Your task to perform on an android device: Clear all items from cart on amazon. Search for razer naga on amazon, select the first entry, add it to the cart, then select checkout. Image 0: 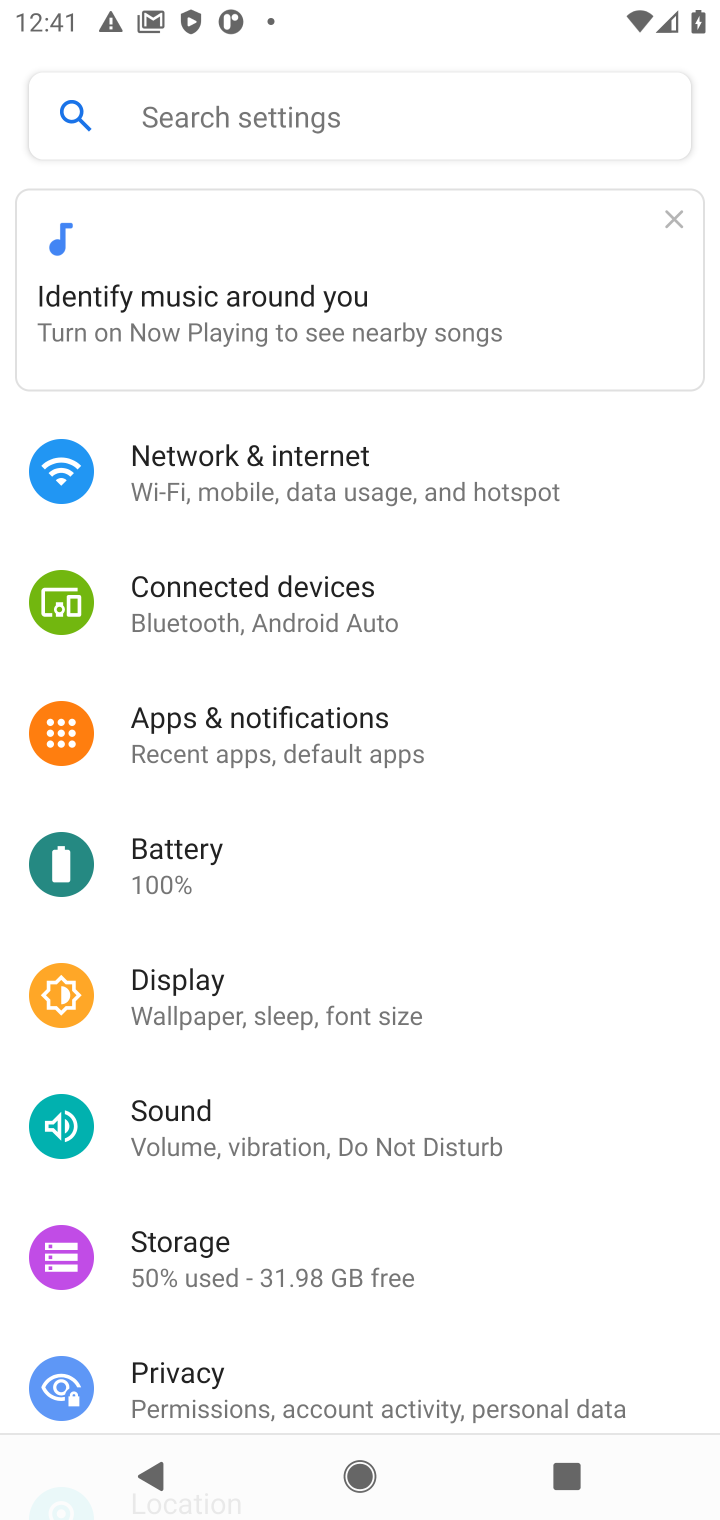
Step 0: press home button
Your task to perform on an android device: Clear all items from cart on amazon. Search for razer naga on amazon, select the first entry, add it to the cart, then select checkout. Image 1: 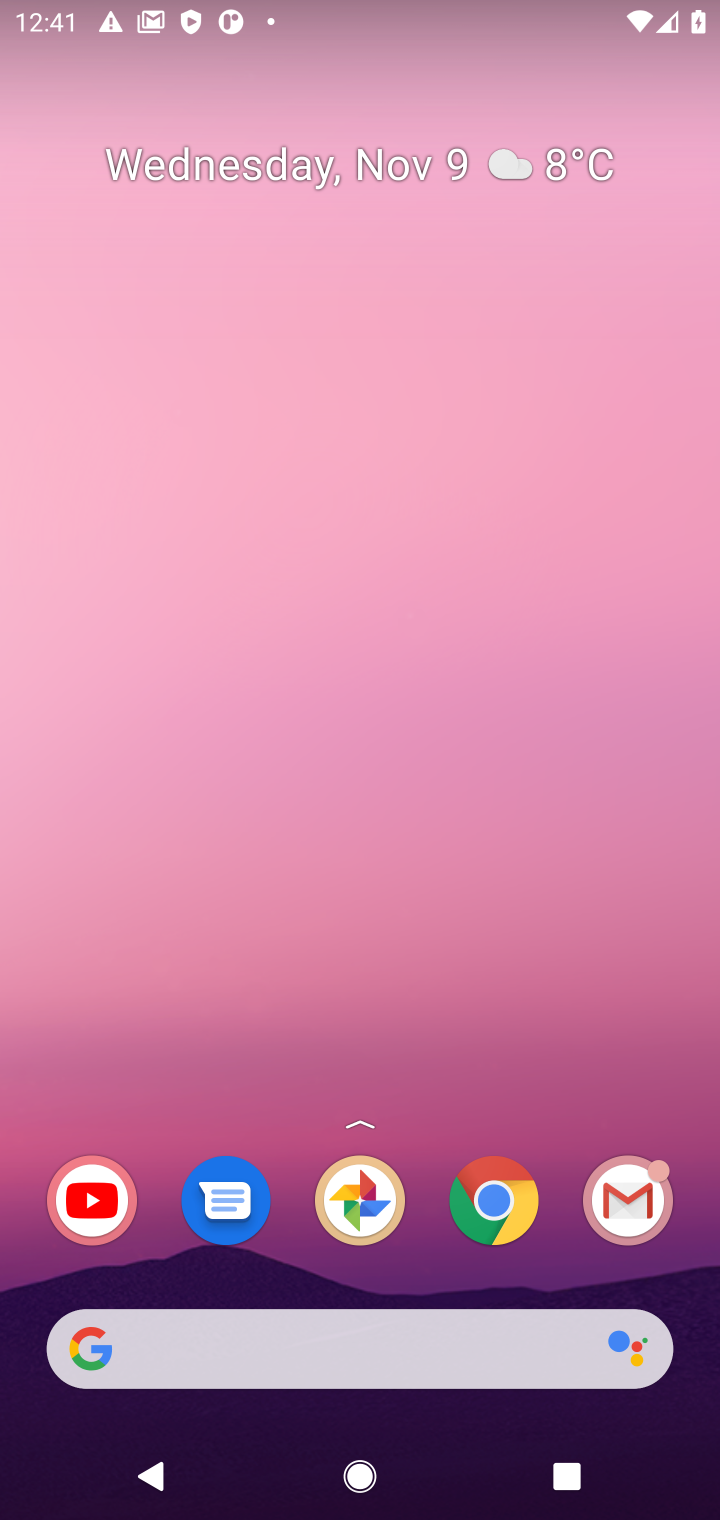
Step 1: click (372, 1373)
Your task to perform on an android device: Clear all items from cart on amazon. Search for razer naga on amazon, select the first entry, add it to the cart, then select checkout. Image 2: 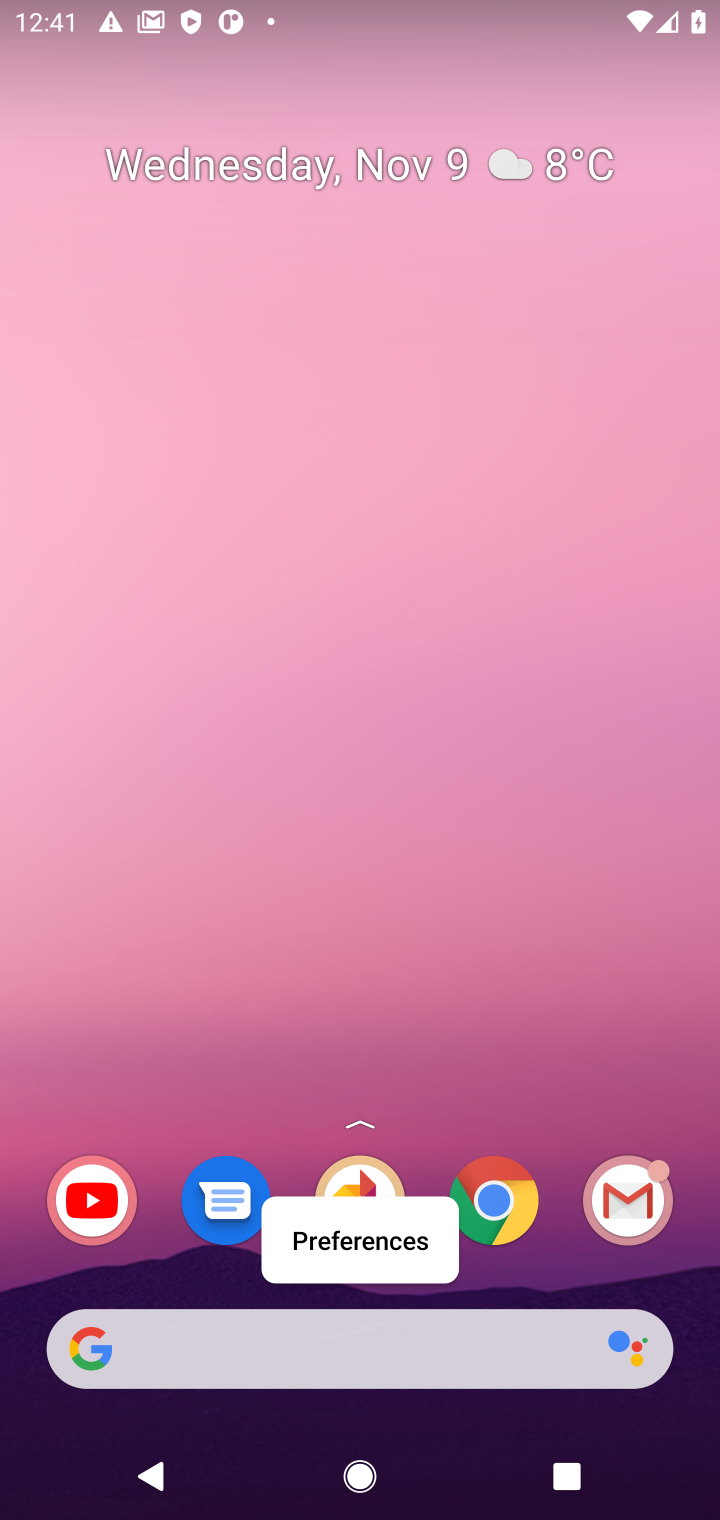
Step 2: type "amazon"
Your task to perform on an android device: Clear all items from cart on amazon. Search for razer naga on amazon, select the first entry, add it to the cart, then select checkout. Image 3: 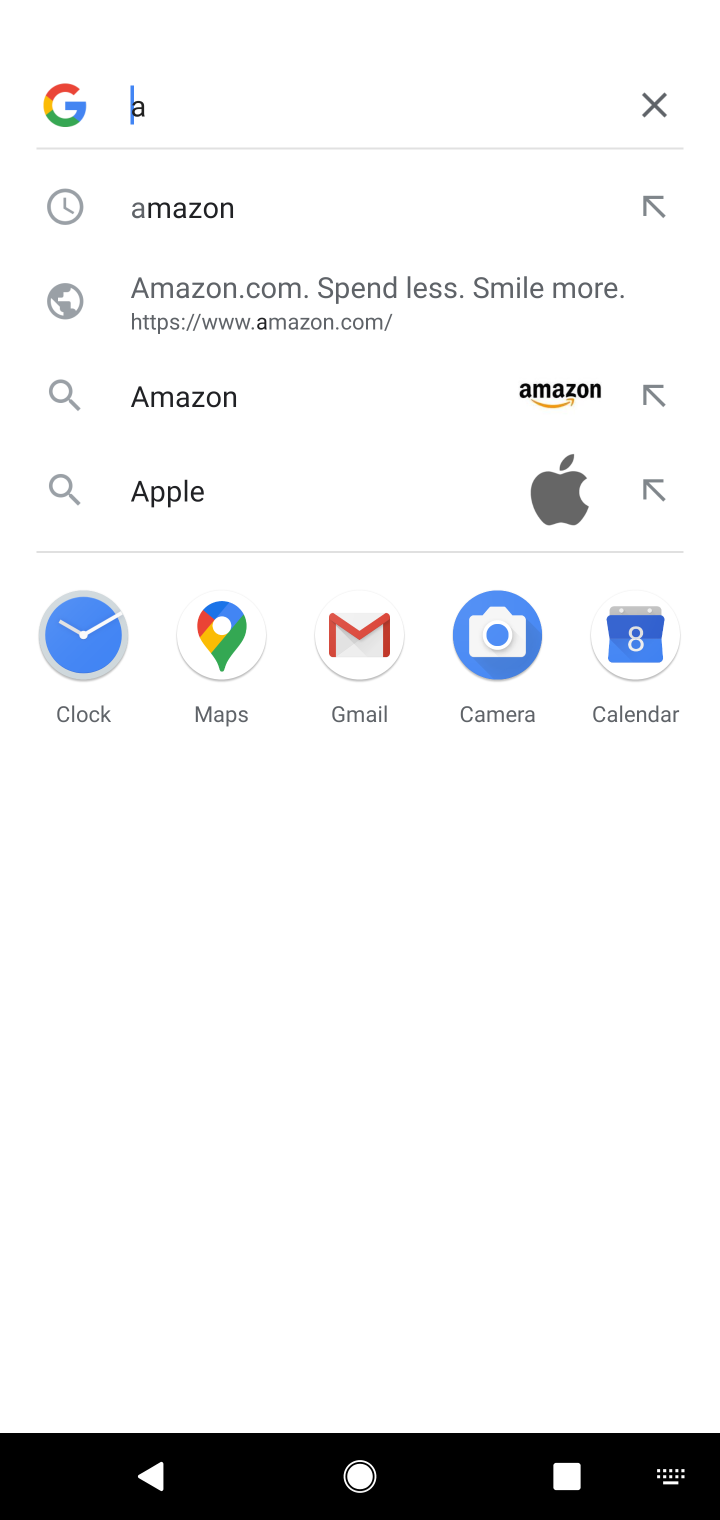
Step 3: click (209, 228)
Your task to perform on an android device: Clear all items from cart on amazon. Search for razer naga on amazon, select the first entry, add it to the cart, then select checkout. Image 4: 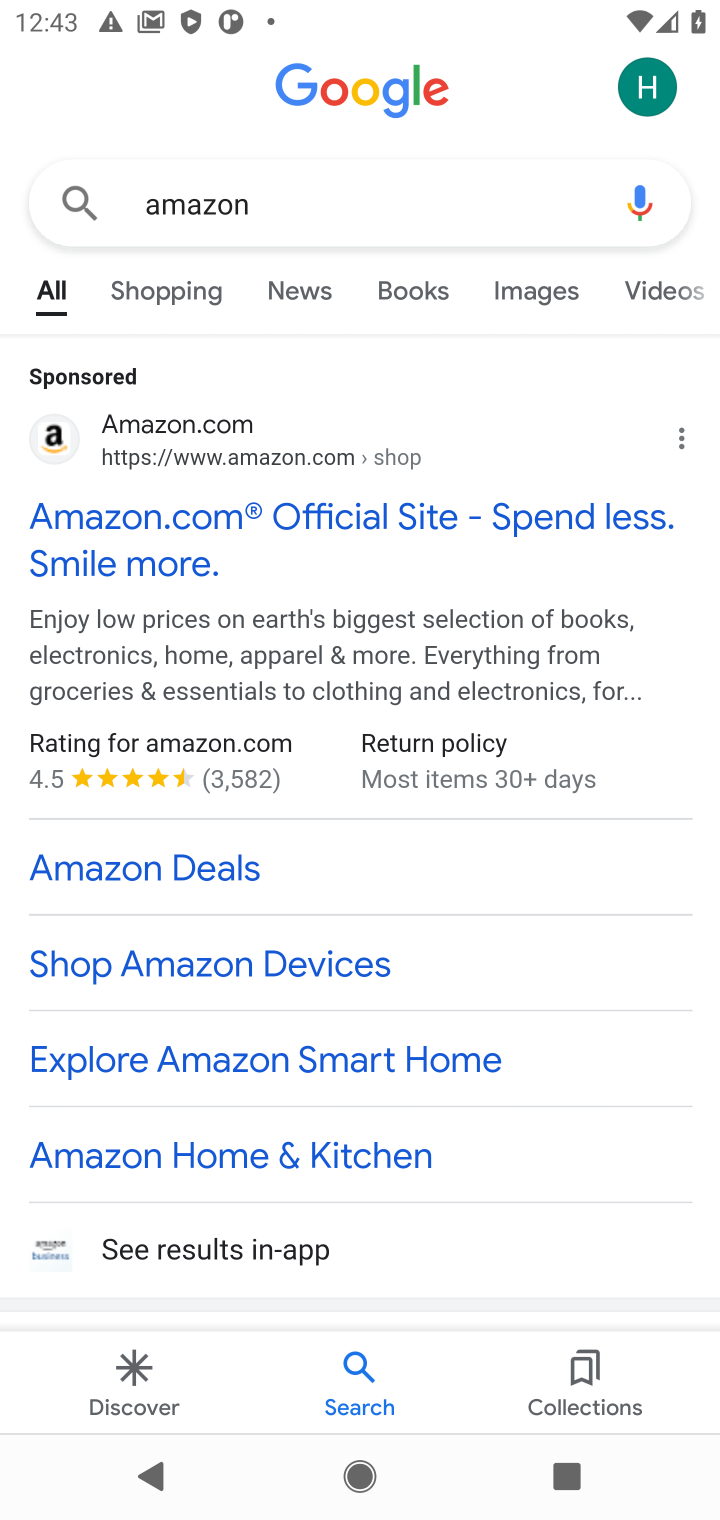
Step 4: click (240, 491)
Your task to perform on an android device: Clear all items from cart on amazon. Search for razer naga on amazon, select the first entry, add it to the cart, then select checkout. Image 5: 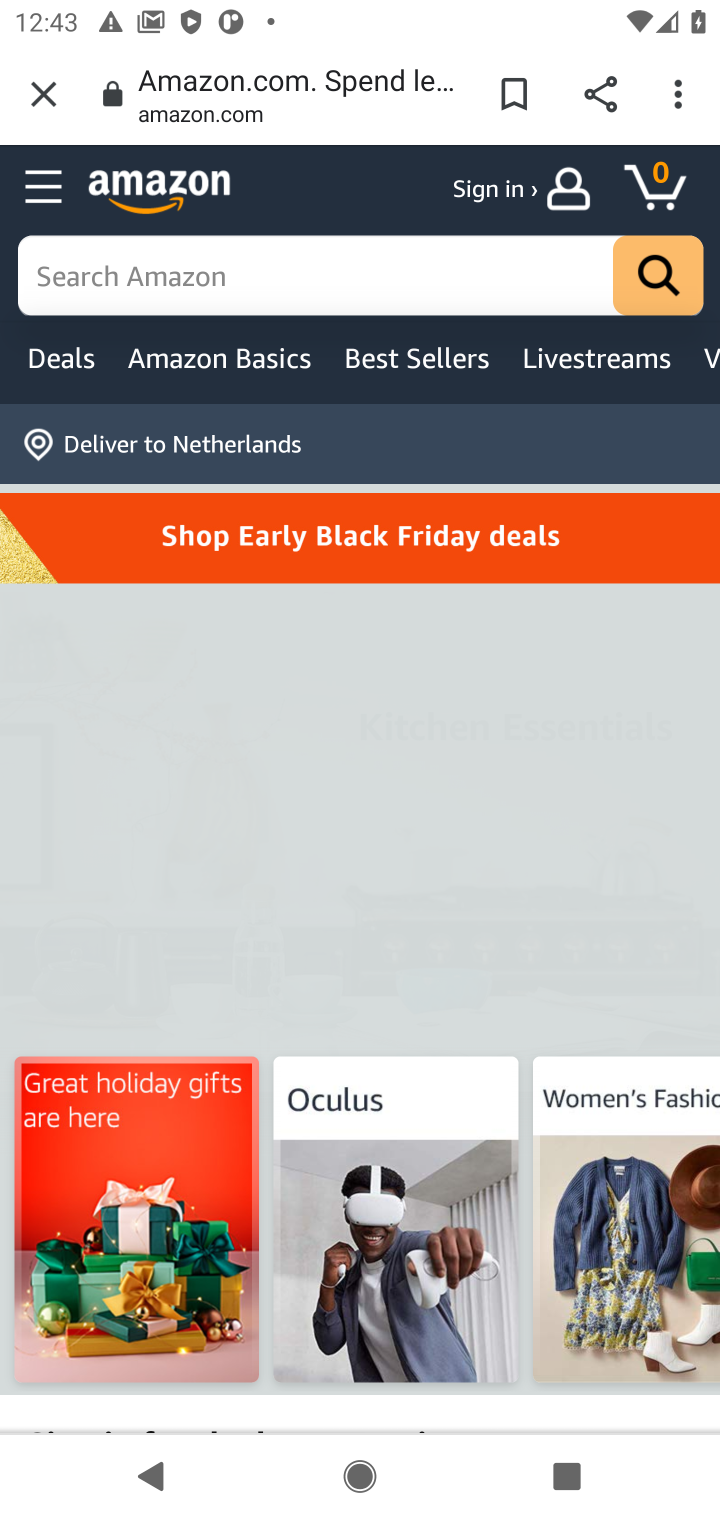
Step 5: task complete